Your task to perform on an android device: Is it going to rain tomorrow? Image 0: 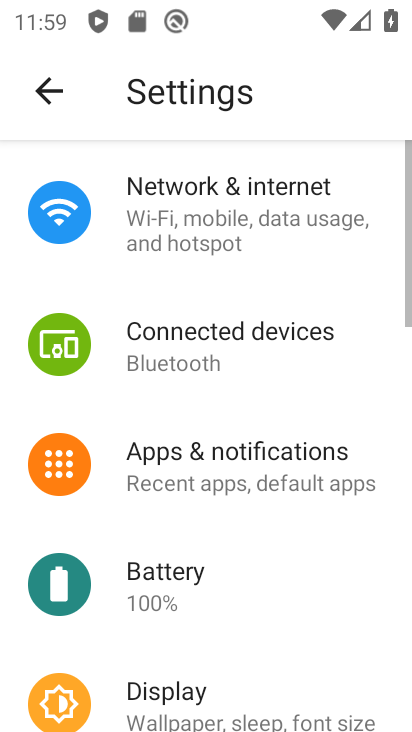
Step 0: press home button
Your task to perform on an android device: Is it going to rain tomorrow? Image 1: 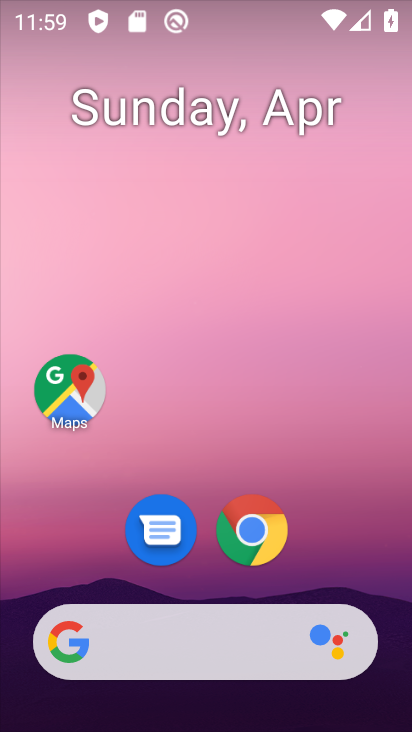
Step 1: click (255, 531)
Your task to perform on an android device: Is it going to rain tomorrow? Image 2: 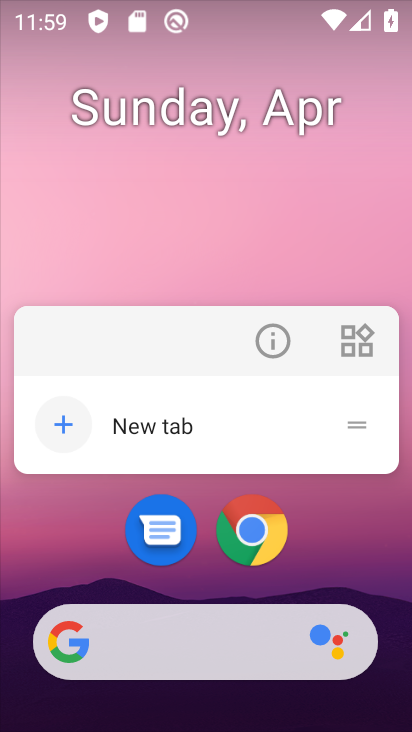
Step 2: click (256, 340)
Your task to perform on an android device: Is it going to rain tomorrow? Image 3: 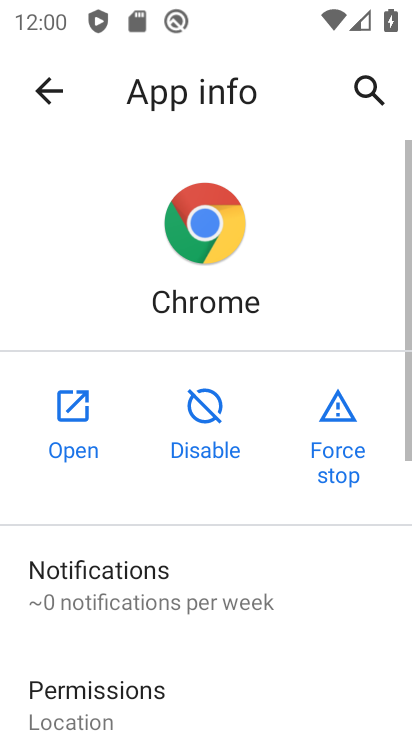
Step 3: click (47, 407)
Your task to perform on an android device: Is it going to rain tomorrow? Image 4: 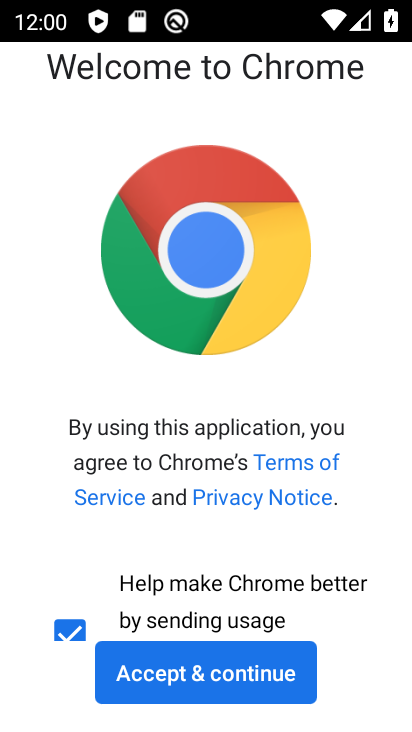
Step 4: click (219, 666)
Your task to perform on an android device: Is it going to rain tomorrow? Image 5: 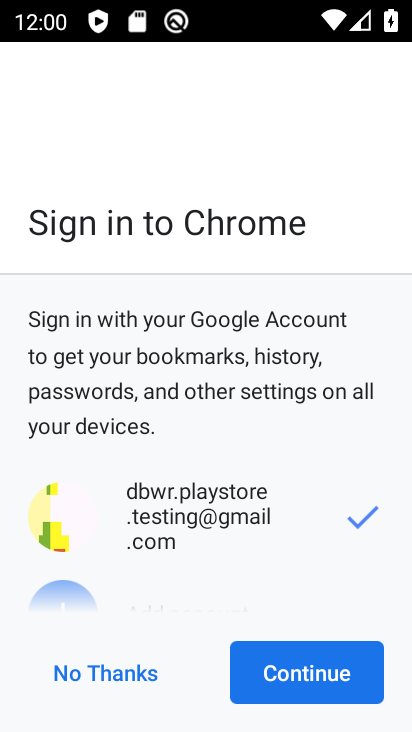
Step 5: click (271, 678)
Your task to perform on an android device: Is it going to rain tomorrow? Image 6: 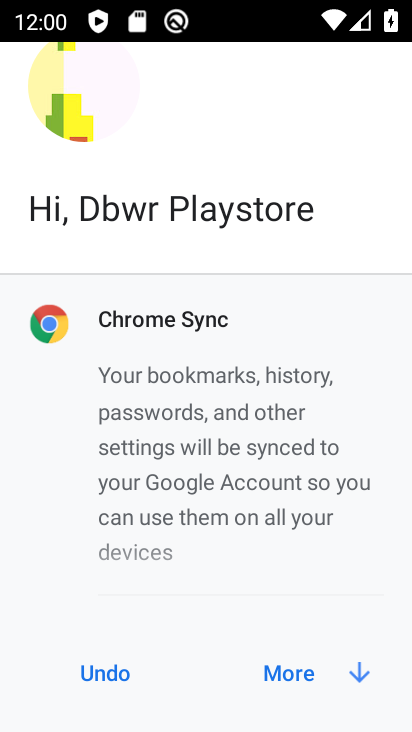
Step 6: click (271, 677)
Your task to perform on an android device: Is it going to rain tomorrow? Image 7: 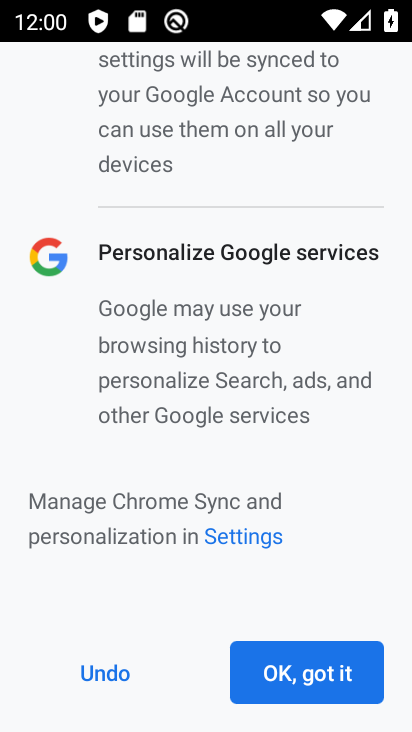
Step 7: click (271, 676)
Your task to perform on an android device: Is it going to rain tomorrow? Image 8: 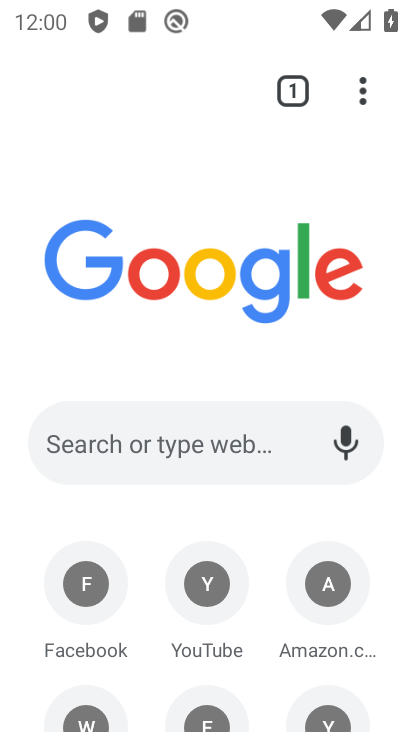
Step 8: click (147, 110)
Your task to perform on an android device: Is it going to rain tomorrow? Image 9: 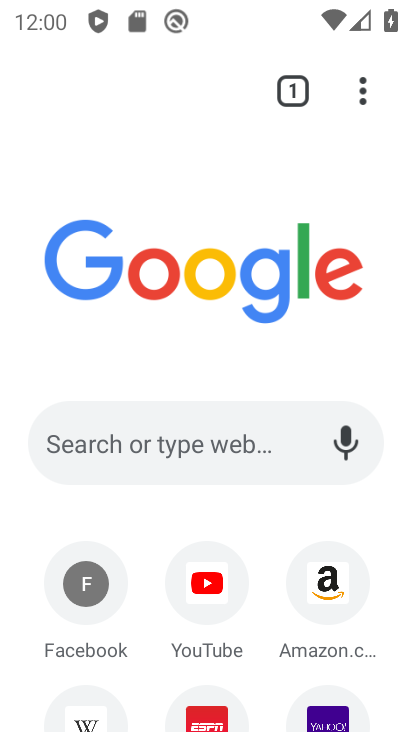
Step 9: click (226, 452)
Your task to perform on an android device: Is it going to rain tomorrow? Image 10: 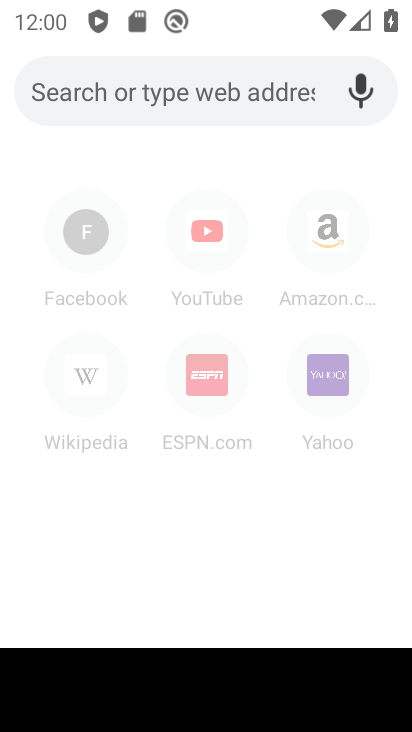
Step 10: type "is it going to rain tomorrow"
Your task to perform on an android device: Is it going to rain tomorrow? Image 11: 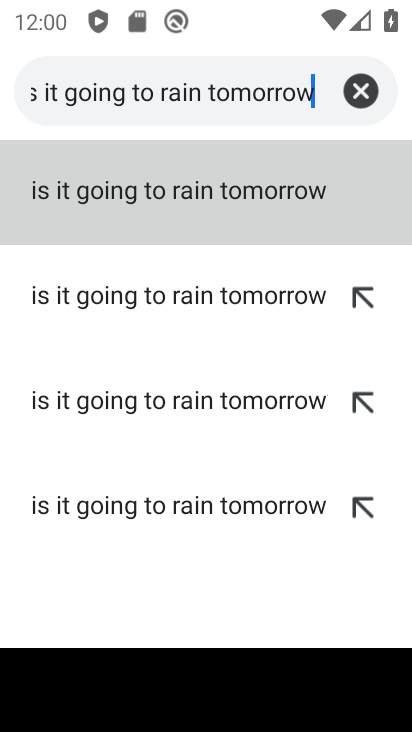
Step 11: click (219, 193)
Your task to perform on an android device: Is it going to rain tomorrow? Image 12: 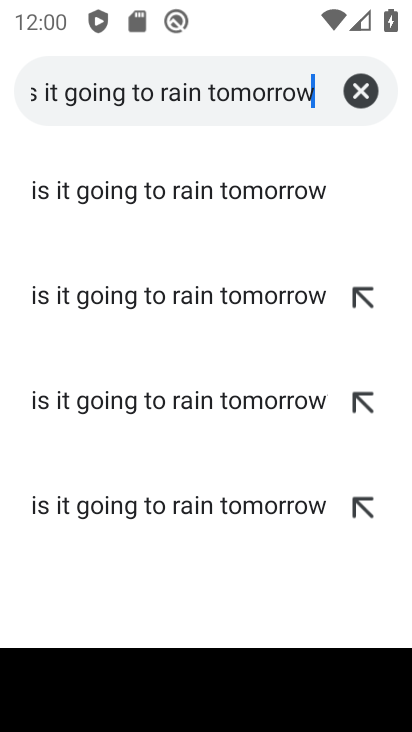
Step 12: click (311, 197)
Your task to perform on an android device: Is it going to rain tomorrow? Image 13: 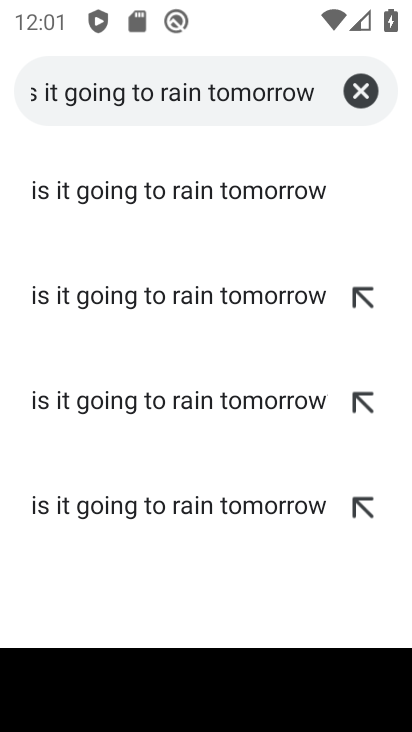
Step 13: click (96, 176)
Your task to perform on an android device: Is it going to rain tomorrow? Image 14: 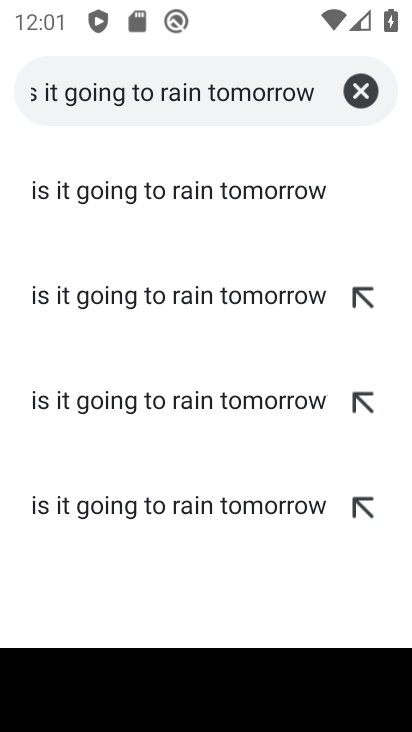
Step 14: click (164, 179)
Your task to perform on an android device: Is it going to rain tomorrow? Image 15: 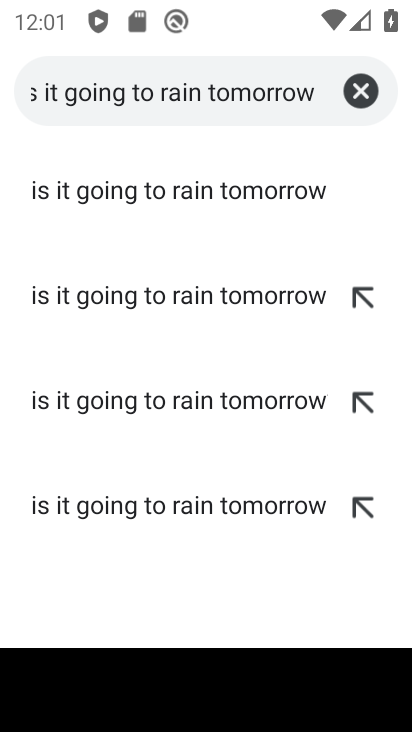
Step 15: click (225, 184)
Your task to perform on an android device: Is it going to rain tomorrow? Image 16: 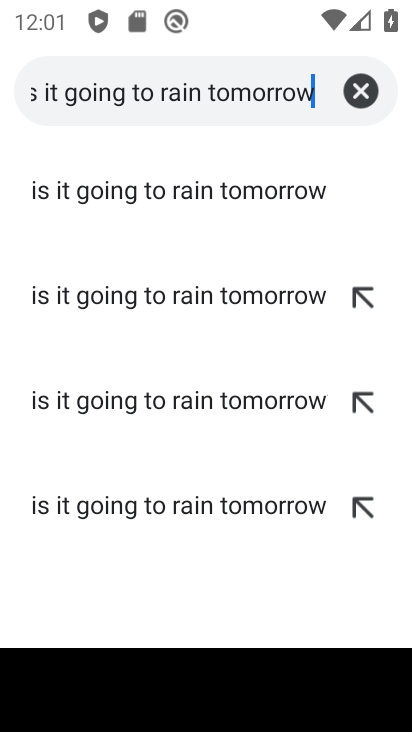
Step 16: click (262, 289)
Your task to perform on an android device: Is it going to rain tomorrow? Image 17: 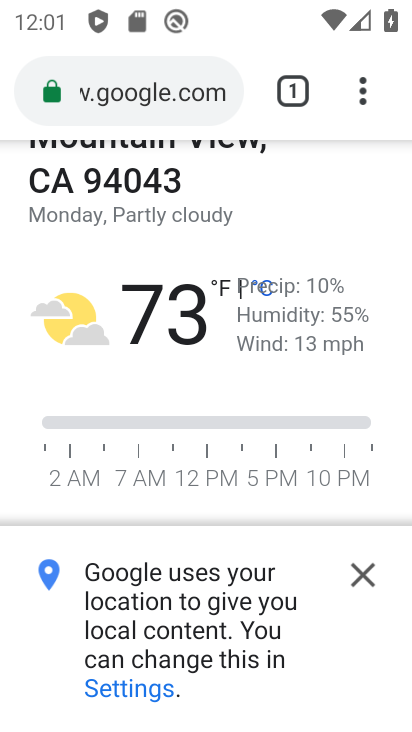
Step 17: click (372, 567)
Your task to perform on an android device: Is it going to rain tomorrow? Image 18: 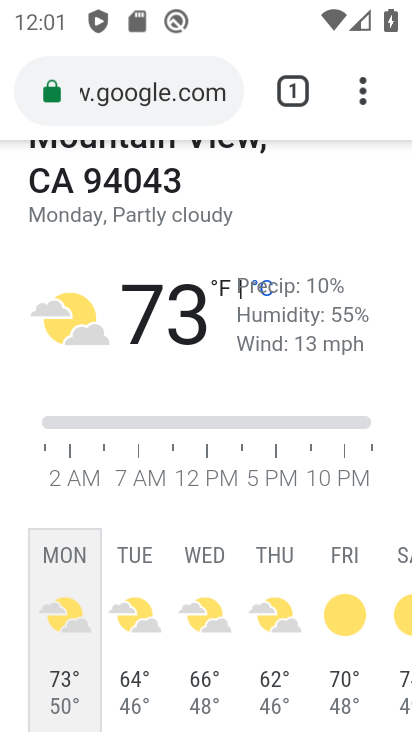
Step 18: task complete